Your task to perform on an android device: turn vacation reply on in the gmail app Image 0: 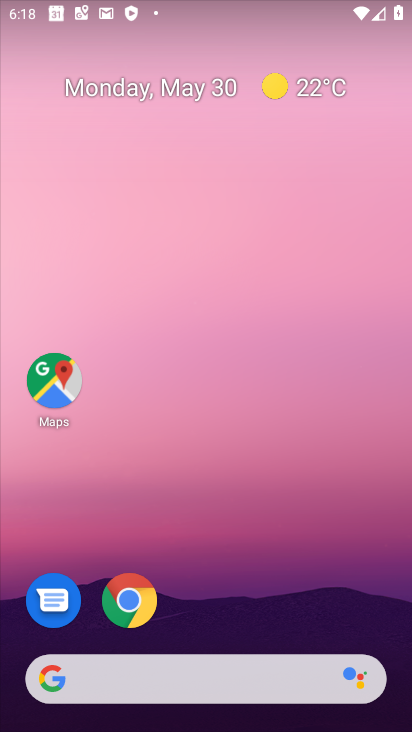
Step 0: press home button
Your task to perform on an android device: turn vacation reply on in the gmail app Image 1: 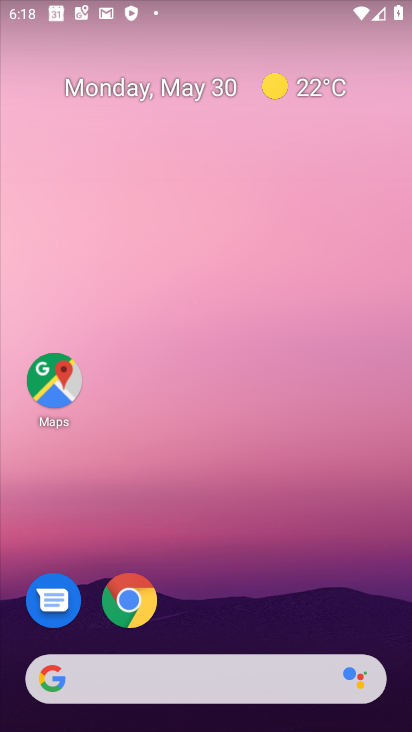
Step 1: drag from (283, 621) to (312, 170)
Your task to perform on an android device: turn vacation reply on in the gmail app Image 2: 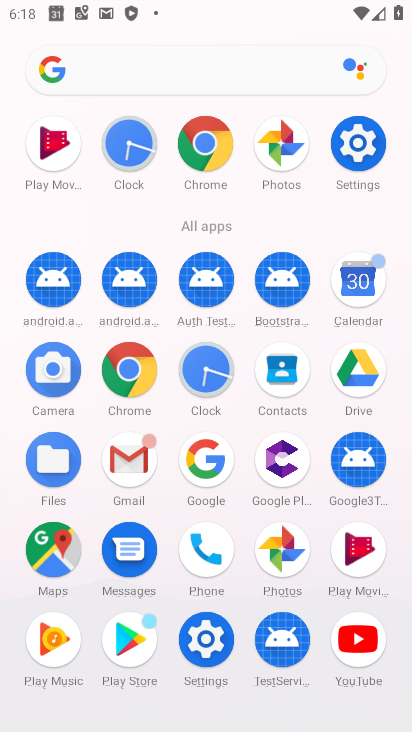
Step 2: click (128, 470)
Your task to perform on an android device: turn vacation reply on in the gmail app Image 3: 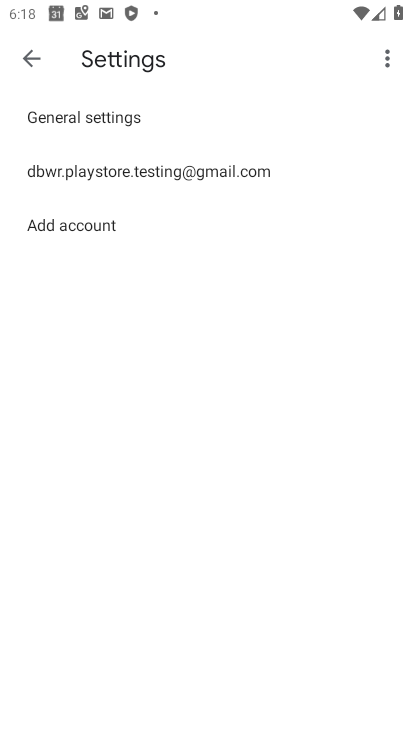
Step 3: click (147, 173)
Your task to perform on an android device: turn vacation reply on in the gmail app Image 4: 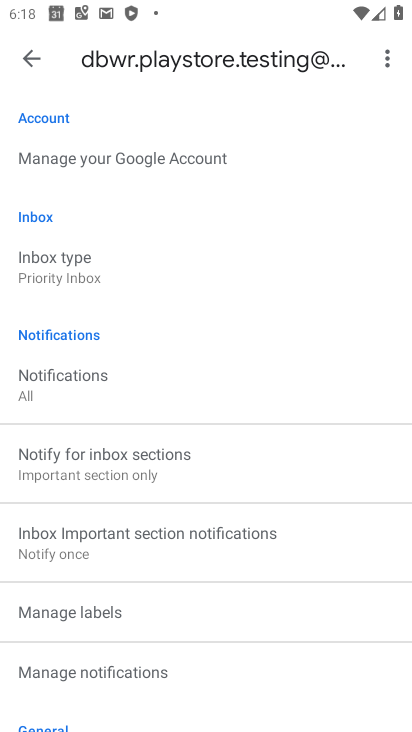
Step 4: drag from (260, 601) to (283, 121)
Your task to perform on an android device: turn vacation reply on in the gmail app Image 5: 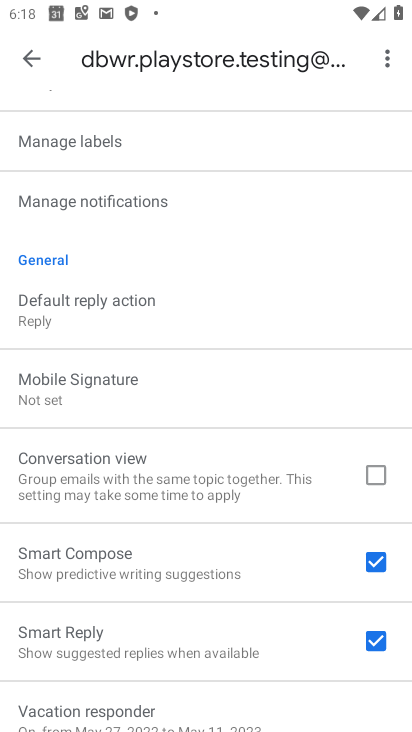
Step 5: drag from (246, 420) to (253, 218)
Your task to perform on an android device: turn vacation reply on in the gmail app Image 6: 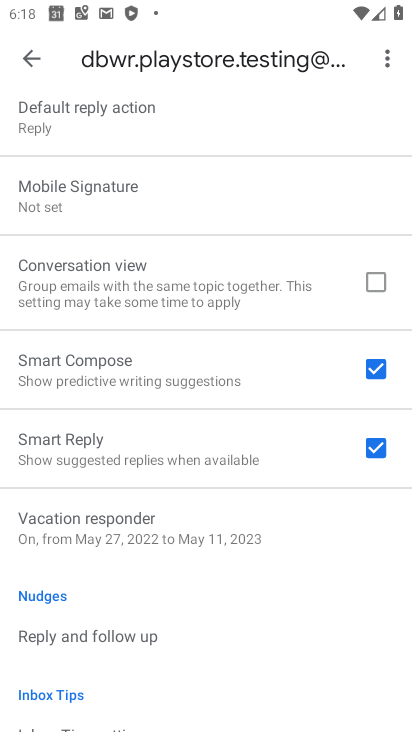
Step 6: click (69, 527)
Your task to perform on an android device: turn vacation reply on in the gmail app Image 7: 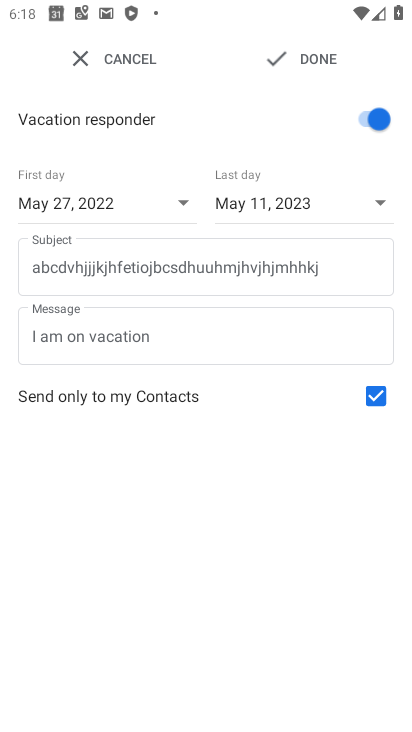
Step 7: task complete